Your task to perform on an android device: toggle pop-ups in chrome Image 0: 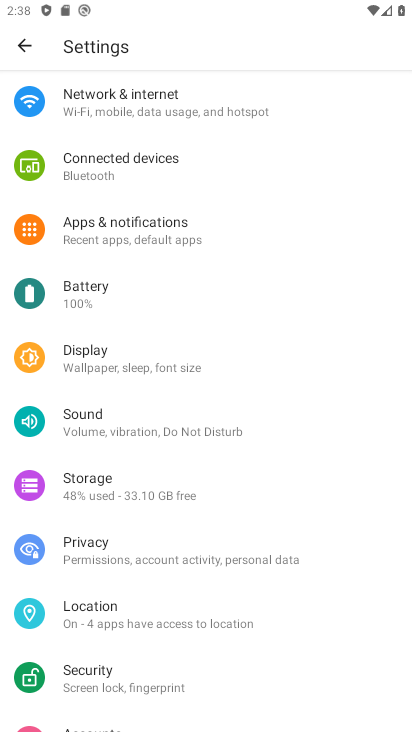
Step 0: press home button
Your task to perform on an android device: toggle pop-ups in chrome Image 1: 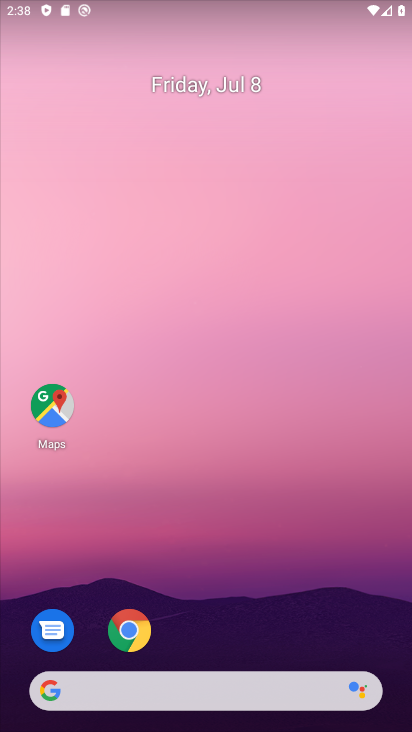
Step 1: click (215, 562)
Your task to perform on an android device: toggle pop-ups in chrome Image 2: 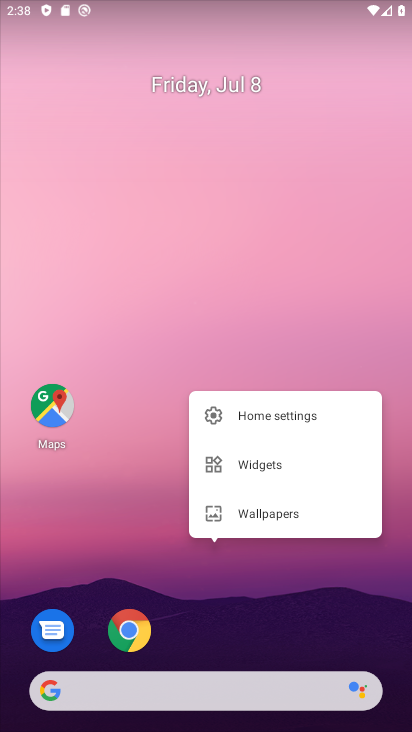
Step 2: click (128, 636)
Your task to perform on an android device: toggle pop-ups in chrome Image 3: 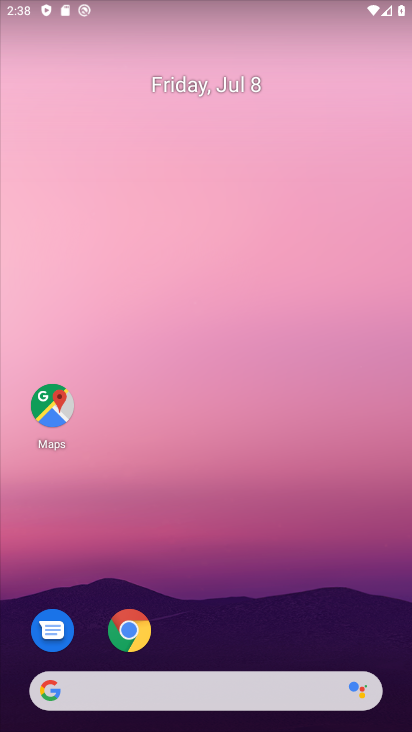
Step 3: click (128, 636)
Your task to perform on an android device: toggle pop-ups in chrome Image 4: 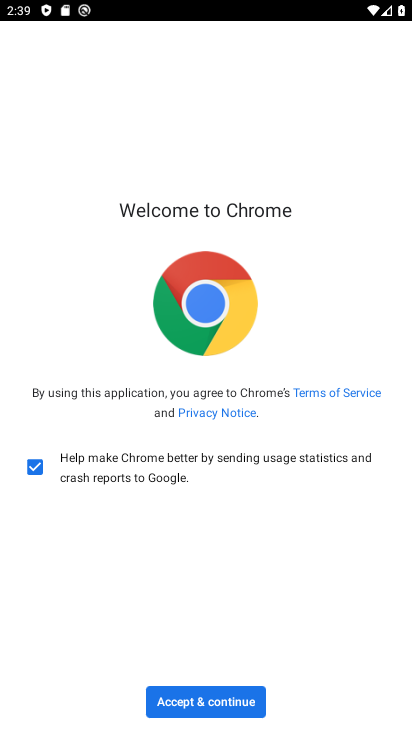
Step 4: click (190, 701)
Your task to perform on an android device: toggle pop-ups in chrome Image 5: 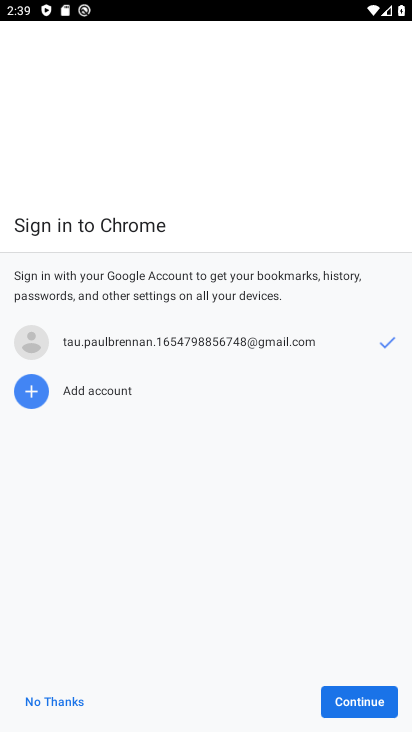
Step 5: click (363, 709)
Your task to perform on an android device: toggle pop-ups in chrome Image 6: 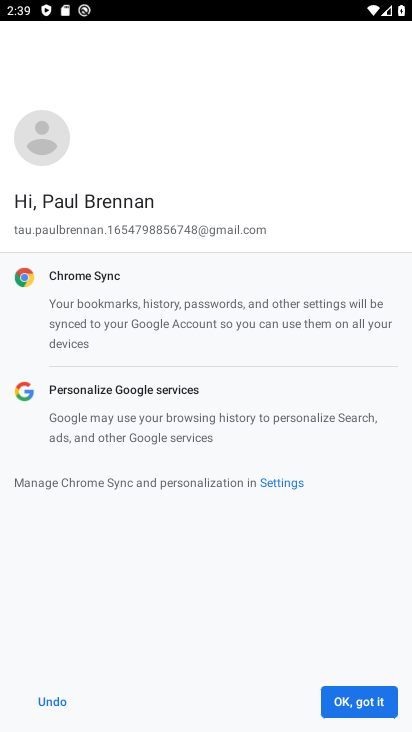
Step 6: click (356, 701)
Your task to perform on an android device: toggle pop-ups in chrome Image 7: 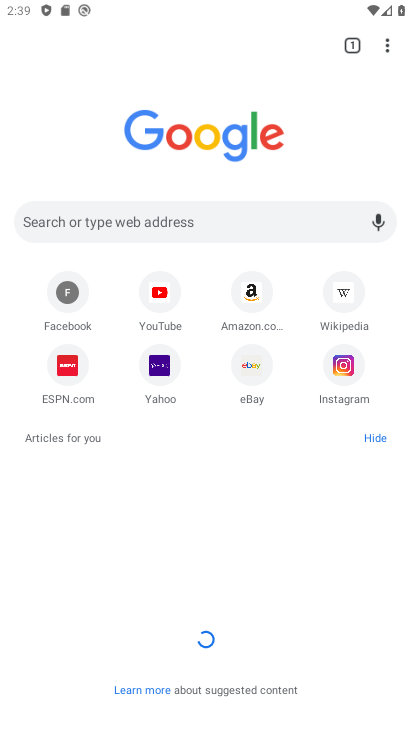
Step 7: click (388, 46)
Your task to perform on an android device: toggle pop-ups in chrome Image 8: 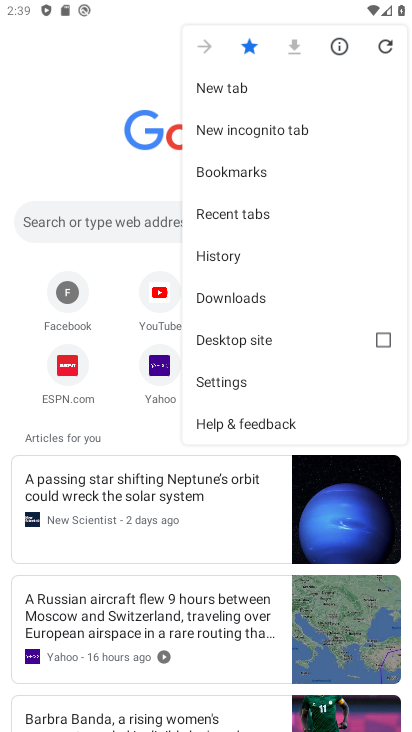
Step 8: click (232, 381)
Your task to perform on an android device: toggle pop-ups in chrome Image 9: 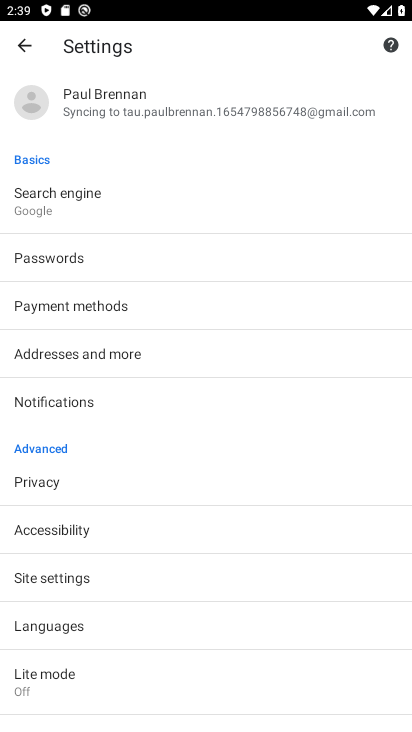
Step 9: task complete